Your task to perform on an android device: allow cookies in the chrome app Image 0: 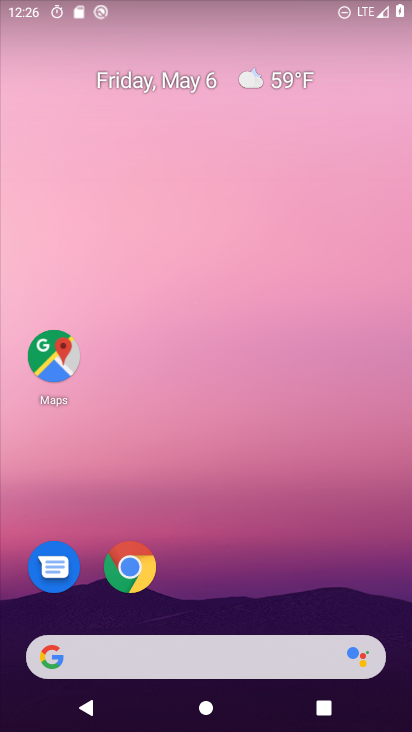
Step 0: click (126, 567)
Your task to perform on an android device: allow cookies in the chrome app Image 1: 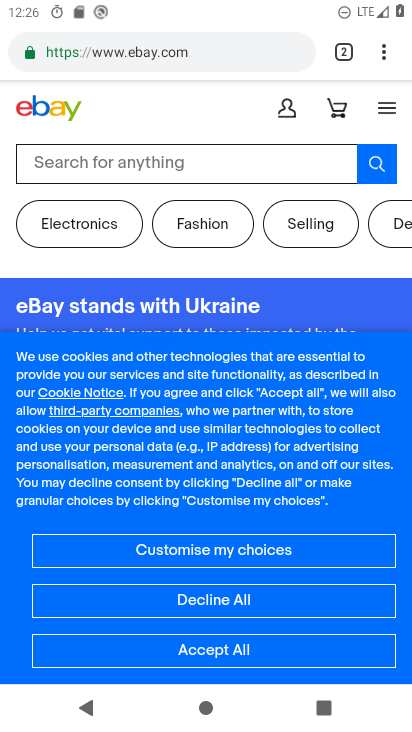
Step 1: drag from (386, 53) to (196, 623)
Your task to perform on an android device: allow cookies in the chrome app Image 2: 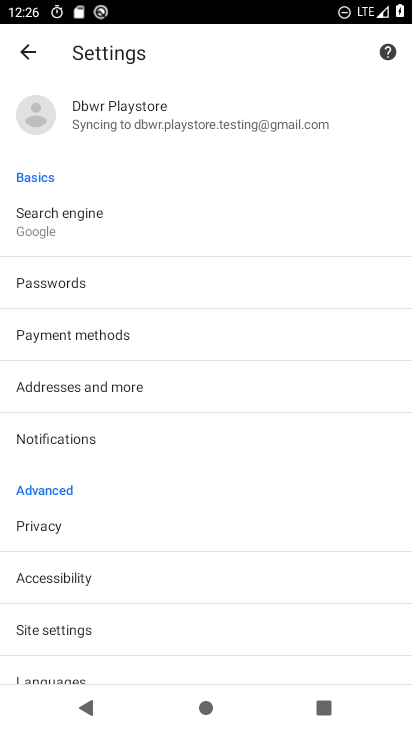
Step 2: click (91, 629)
Your task to perform on an android device: allow cookies in the chrome app Image 3: 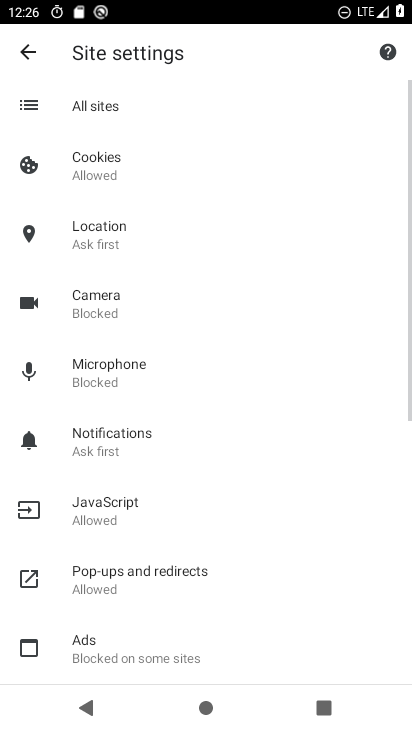
Step 3: click (112, 172)
Your task to perform on an android device: allow cookies in the chrome app Image 4: 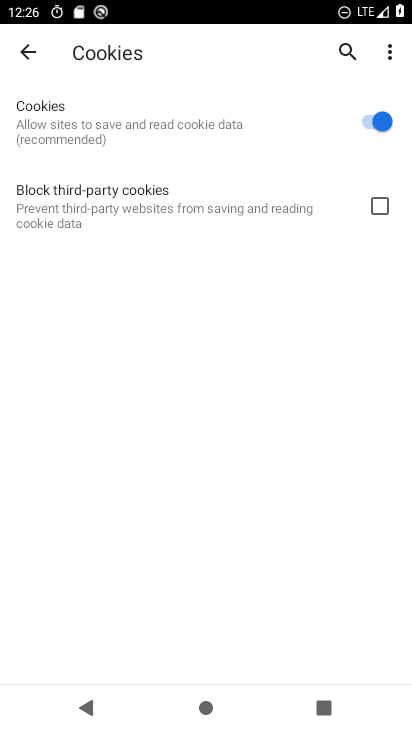
Step 4: task complete